Your task to perform on an android device: Go to Google maps Image 0: 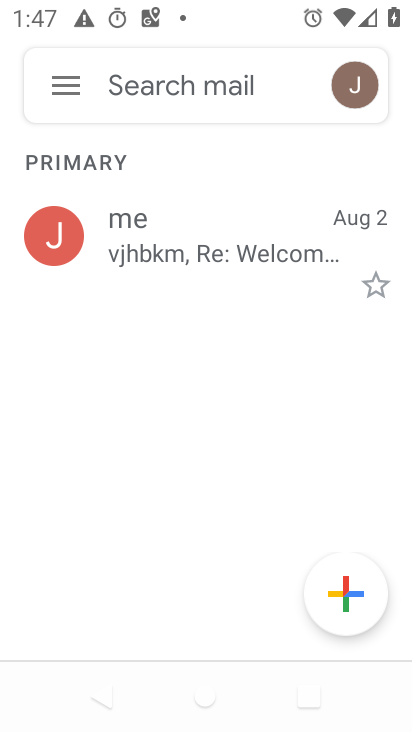
Step 0: press back button
Your task to perform on an android device: Go to Google maps Image 1: 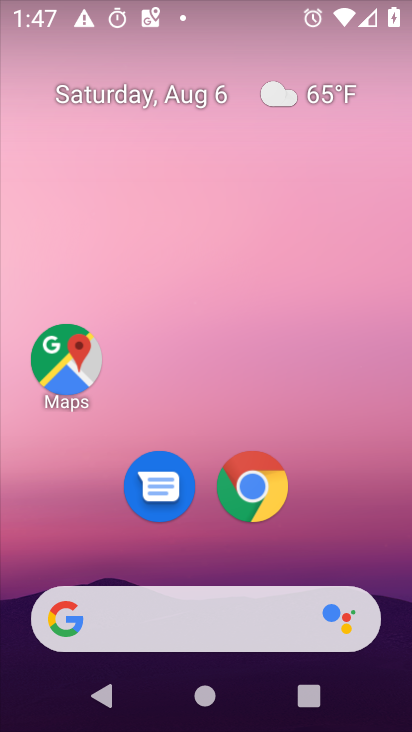
Step 1: click (74, 359)
Your task to perform on an android device: Go to Google maps Image 2: 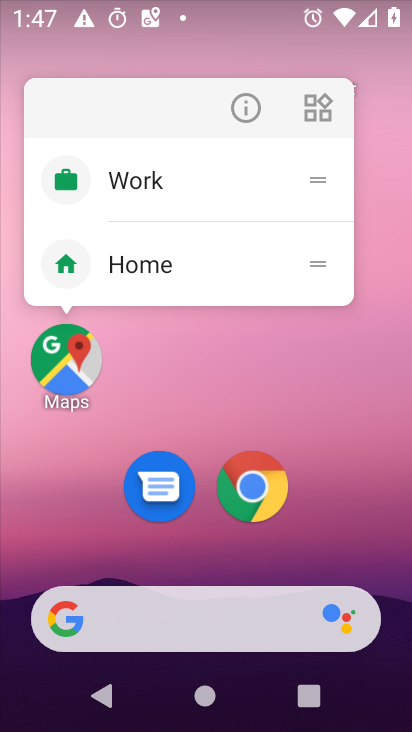
Step 2: click (74, 359)
Your task to perform on an android device: Go to Google maps Image 3: 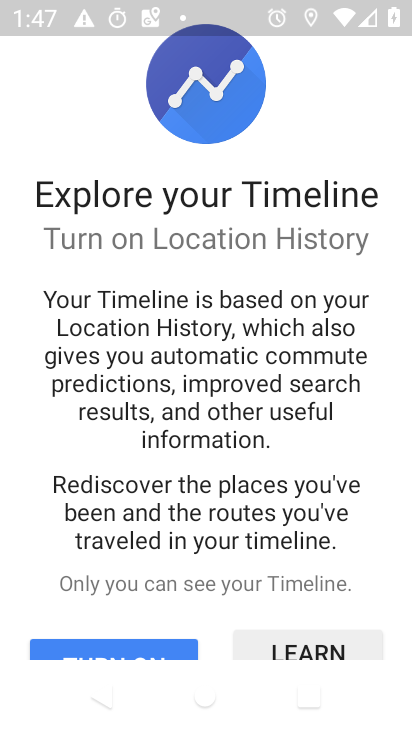
Step 3: task complete